Your task to perform on an android device: toggle sleep mode Image 0: 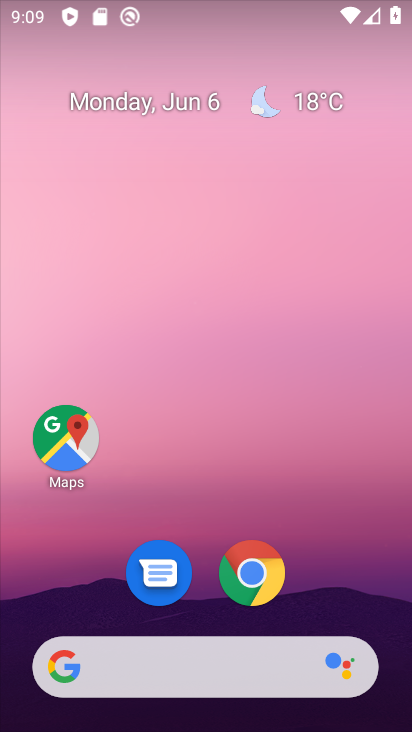
Step 0: drag from (226, 615) to (257, 55)
Your task to perform on an android device: toggle sleep mode Image 1: 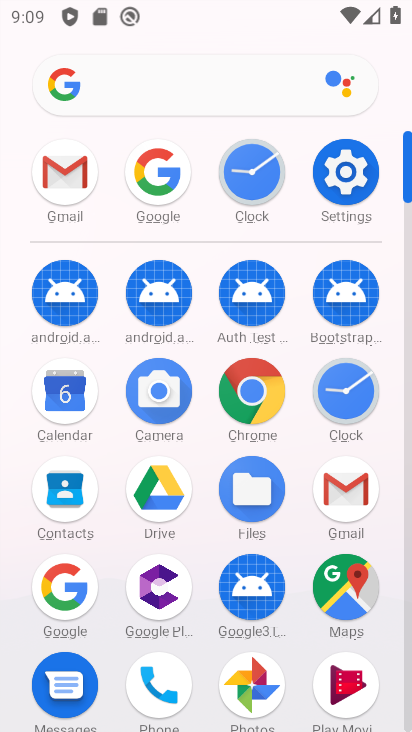
Step 1: click (356, 173)
Your task to perform on an android device: toggle sleep mode Image 2: 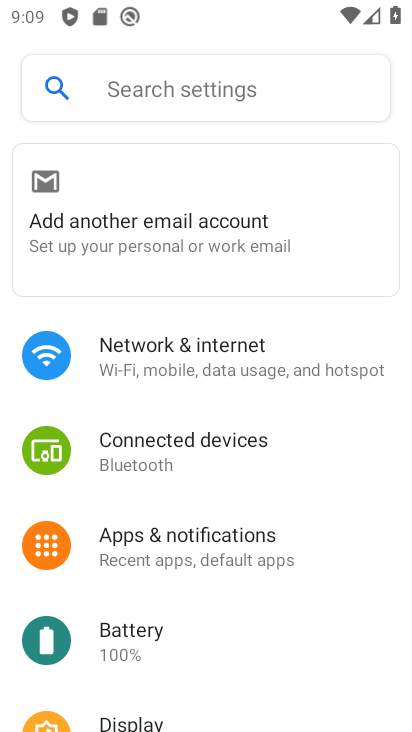
Step 2: click (184, 84)
Your task to perform on an android device: toggle sleep mode Image 3: 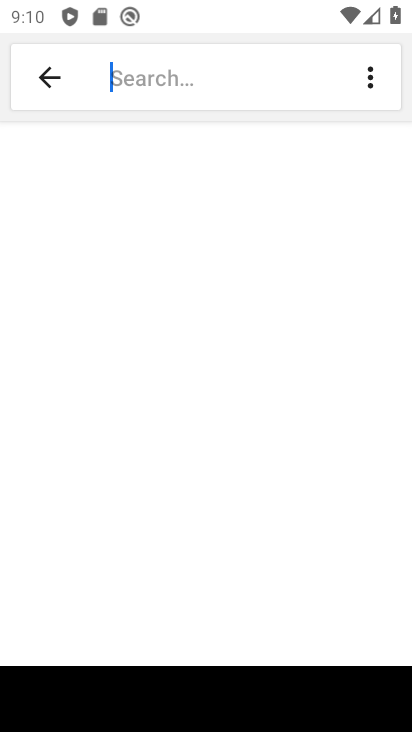
Step 3: type "sleep mode"
Your task to perform on an android device: toggle sleep mode Image 4: 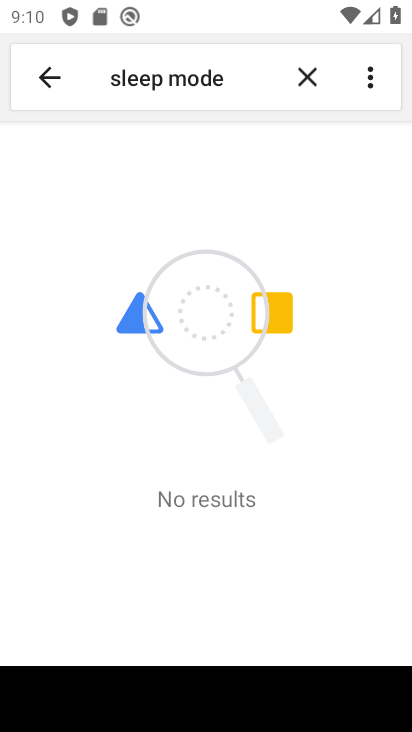
Step 4: task complete